Your task to perform on an android device: Open Google Chrome and open the bookmarks view Image 0: 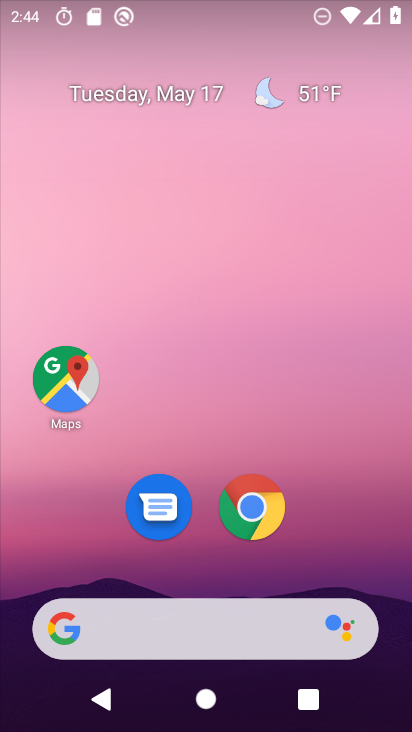
Step 0: click (258, 508)
Your task to perform on an android device: Open Google Chrome and open the bookmarks view Image 1: 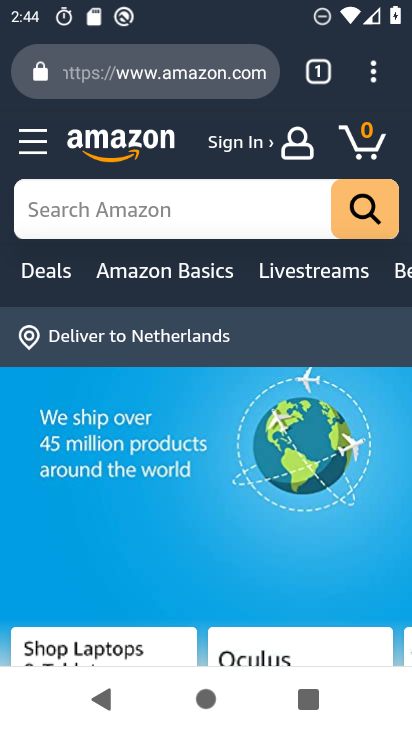
Step 1: click (365, 79)
Your task to perform on an android device: Open Google Chrome and open the bookmarks view Image 2: 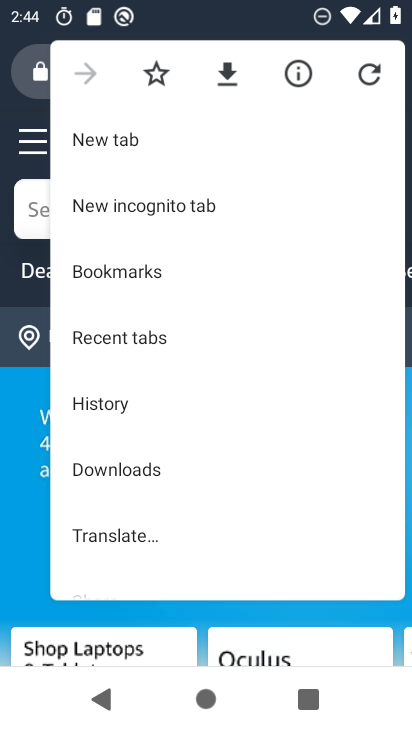
Step 2: drag from (228, 492) to (224, 186)
Your task to perform on an android device: Open Google Chrome and open the bookmarks view Image 3: 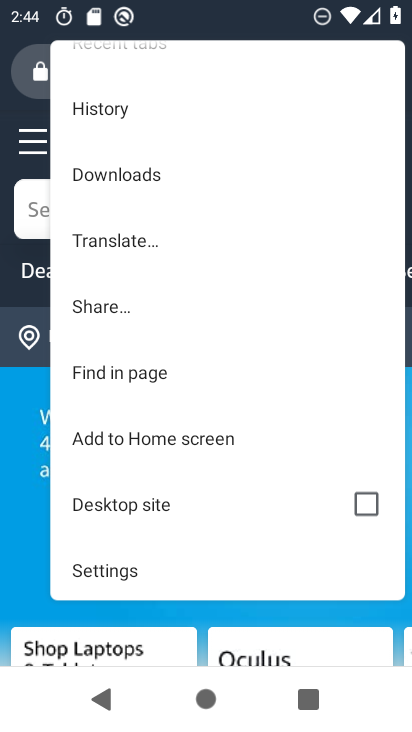
Step 3: drag from (156, 223) to (231, 521)
Your task to perform on an android device: Open Google Chrome and open the bookmarks view Image 4: 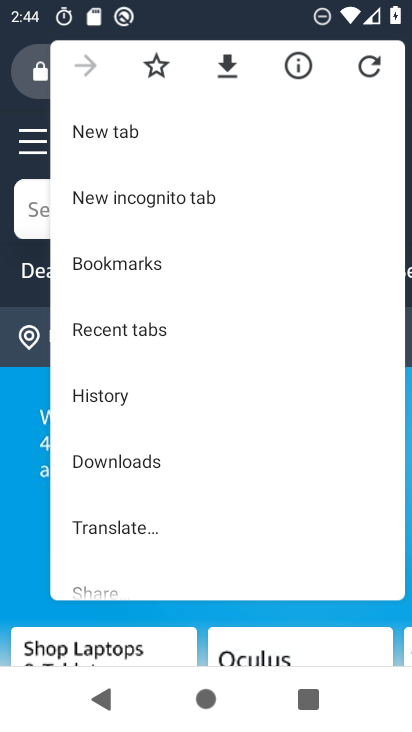
Step 4: click (149, 273)
Your task to perform on an android device: Open Google Chrome and open the bookmarks view Image 5: 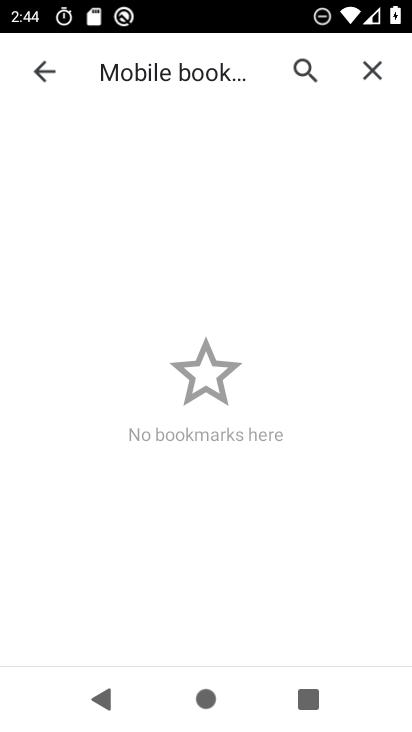
Step 5: task complete